Your task to perform on an android device: Open Google Maps Image 0: 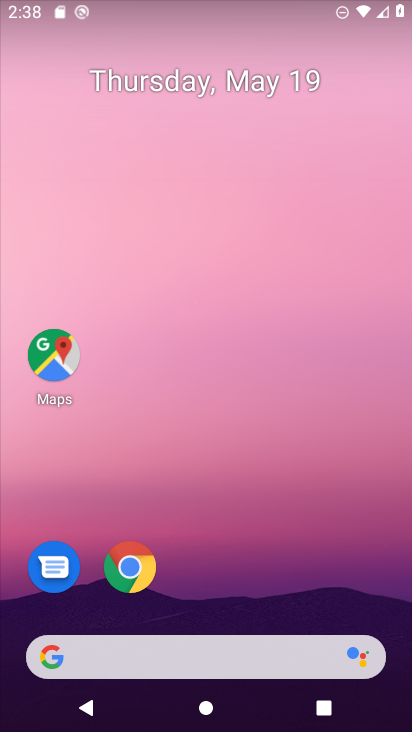
Step 0: click (59, 364)
Your task to perform on an android device: Open Google Maps Image 1: 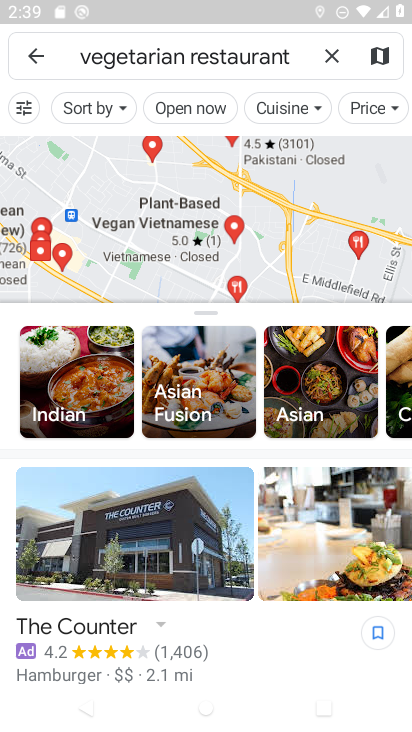
Step 1: click (35, 51)
Your task to perform on an android device: Open Google Maps Image 2: 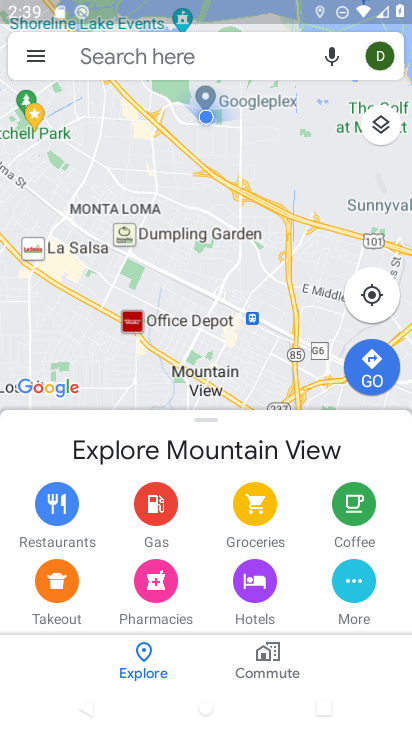
Step 2: task complete